Your task to perform on an android device: check android version Image 0: 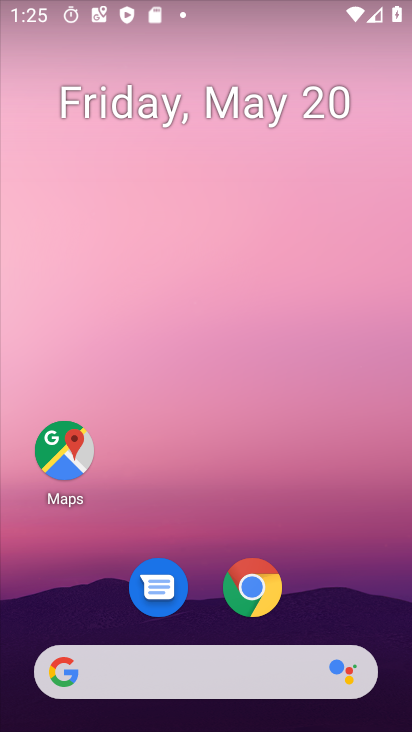
Step 0: drag from (360, 554) to (237, 78)
Your task to perform on an android device: check android version Image 1: 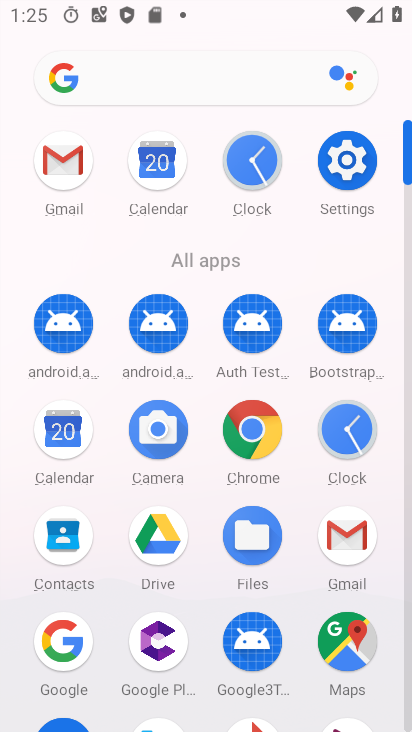
Step 1: click (343, 168)
Your task to perform on an android device: check android version Image 2: 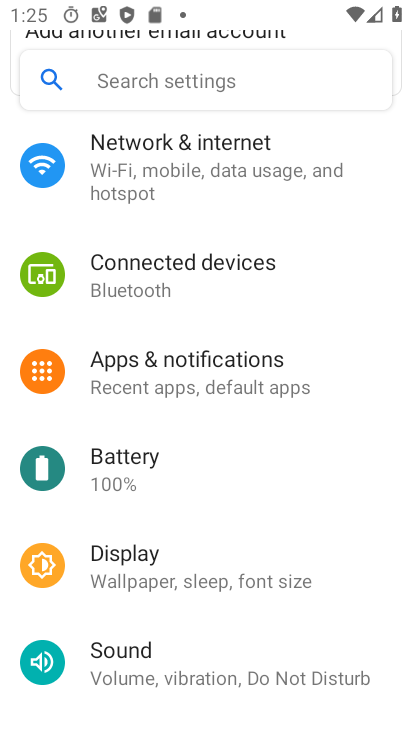
Step 2: drag from (234, 645) to (360, 9)
Your task to perform on an android device: check android version Image 3: 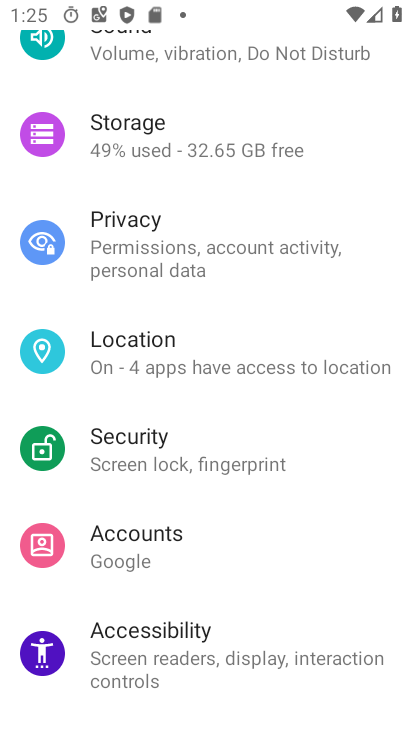
Step 3: drag from (213, 583) to (260, 58)
Your task to perform on an android device: check android version Image 4: 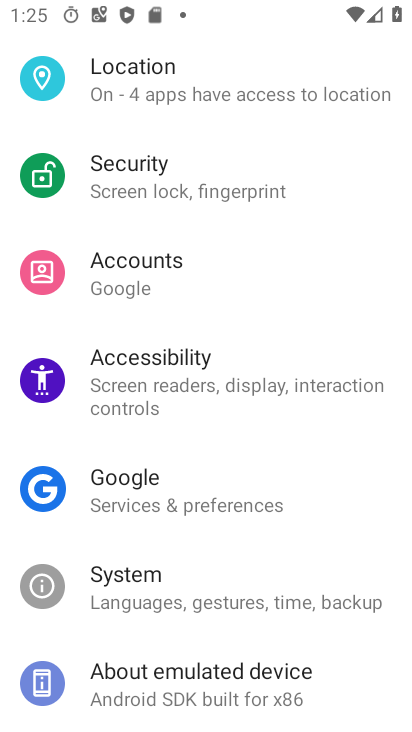
Step 4: click (204, 667)
Your task to perform on an android device: check android version Image 5: 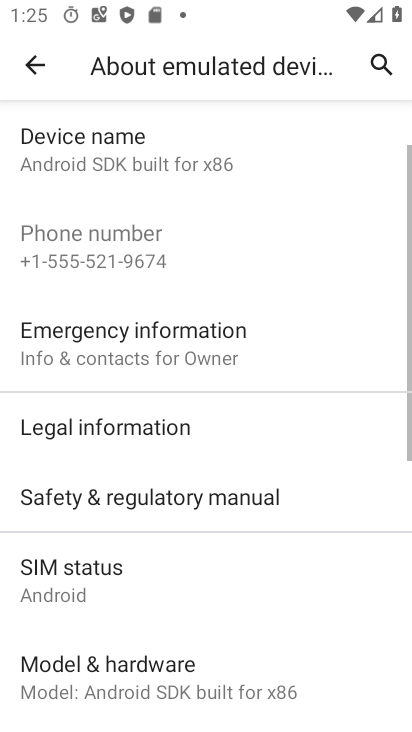
Step 5: drag from (193, 537) to (257, 15)
Your task to perform on an android device: check android version Image 6: 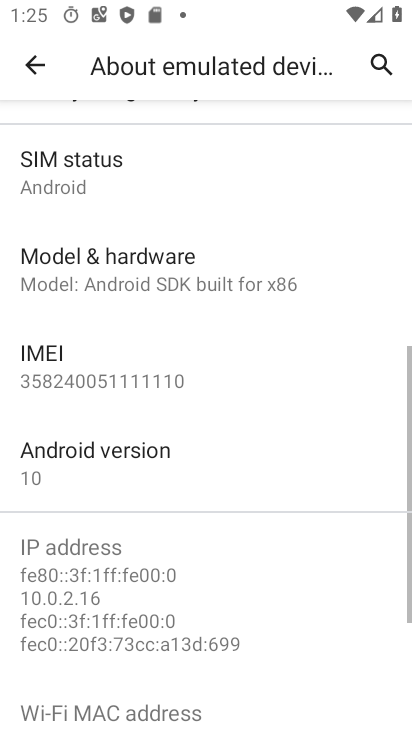
Step 6: click (117, 468)
Your task to perform on an android device: check android version Image 7: 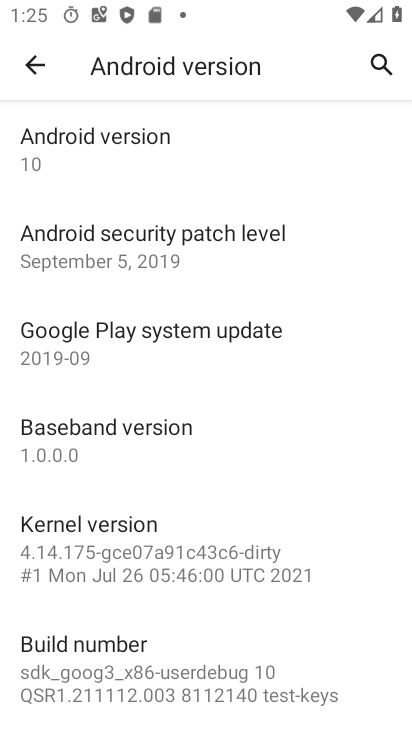
Step 7: task complete